Your task to perform on an android device: Go to ESPN.com Image 0: 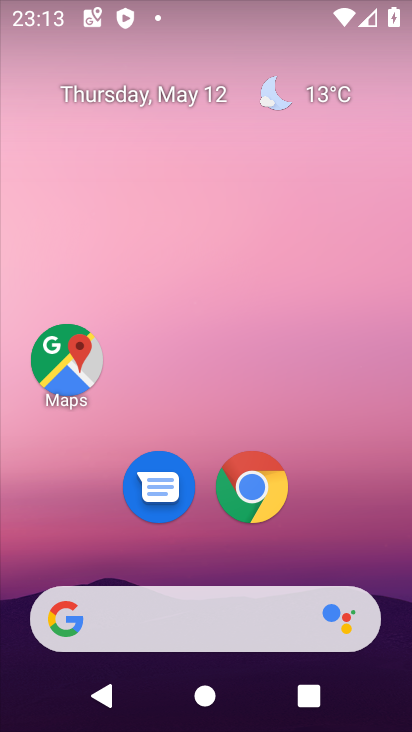
Step 0: click (254, 500)
Your task to perform on an android device: Go to ESPN.com Image 1: 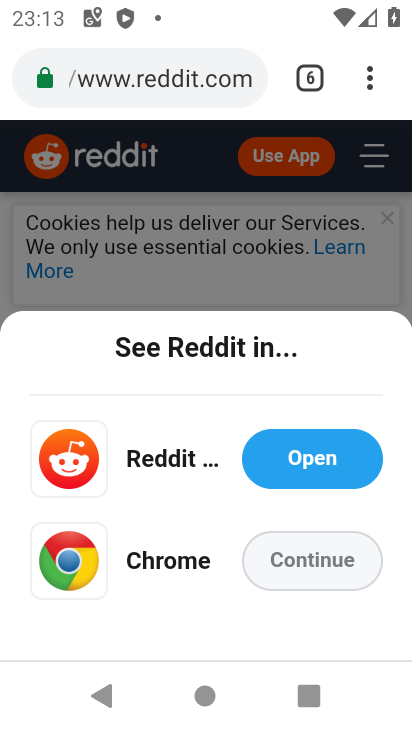
Step 1: click (192, 60)
Your task to perform on an android device: Go to ESPN.com Image 2: 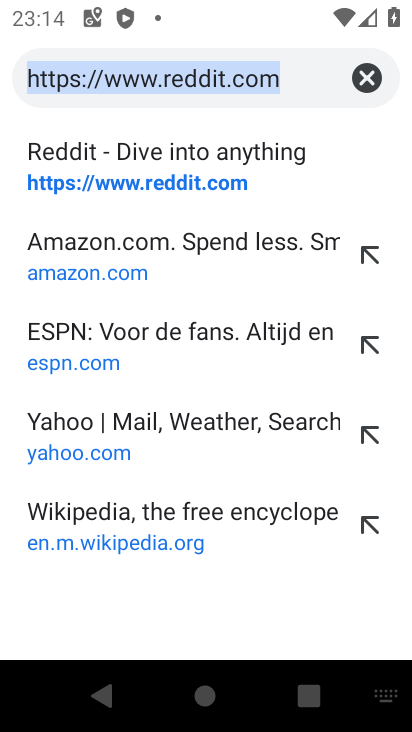
Step 2: click (140, 341)
Your task to perform on an android device: Go to ESPN.com Image 3: 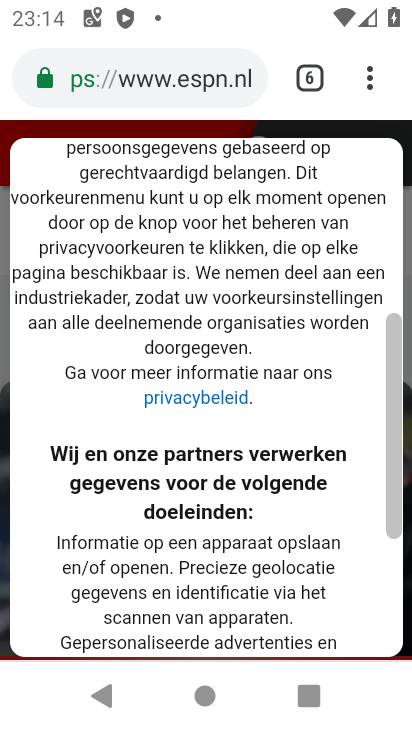
Step 3: task complete